Your task to perform on an android device: Do I have any events tomorrow? Image 0: 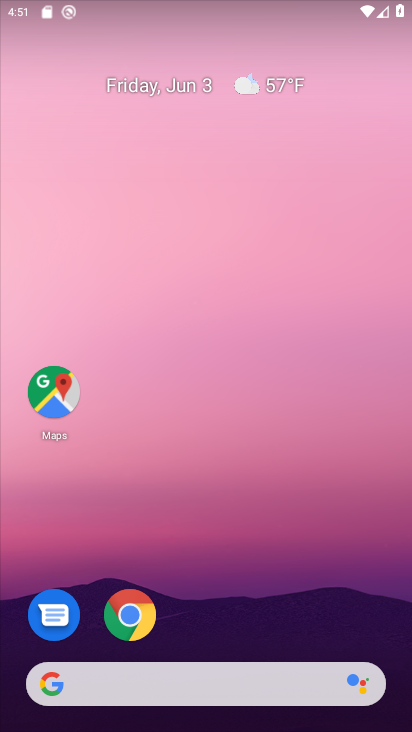
Step 0: drag from (230, 615) to (307, 39)
Your task to perform on an android device: Do I have any events tomorrow? Image 1: 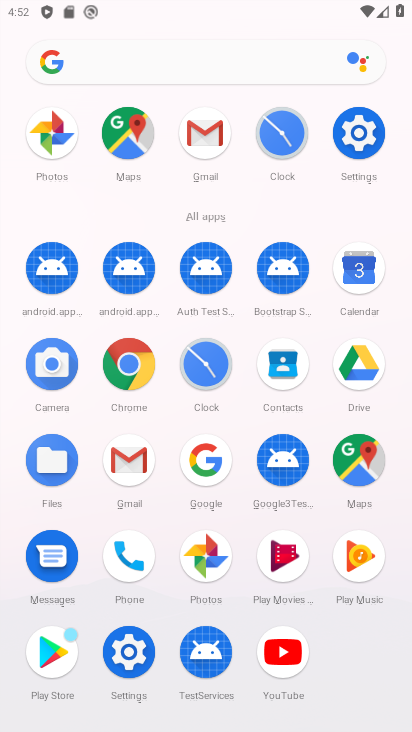
Step 1: click (350, 272)
Your task to perform on an android device: Do I have any events tomorrow? Image 2: 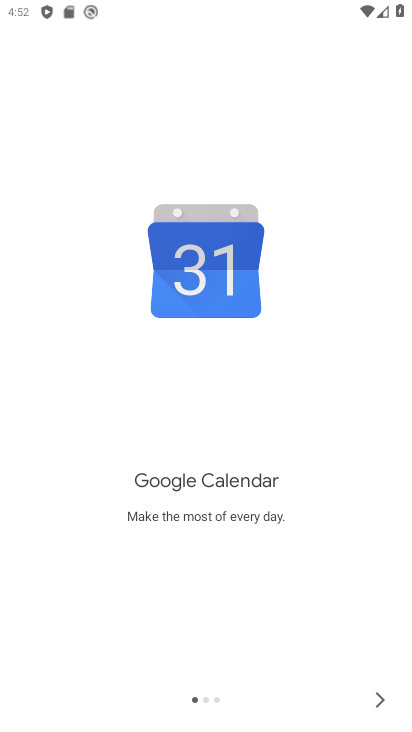
Step 2: click (385, 701)
Your task to perform on an android device: Do I have any events tomorrow? Image 3: 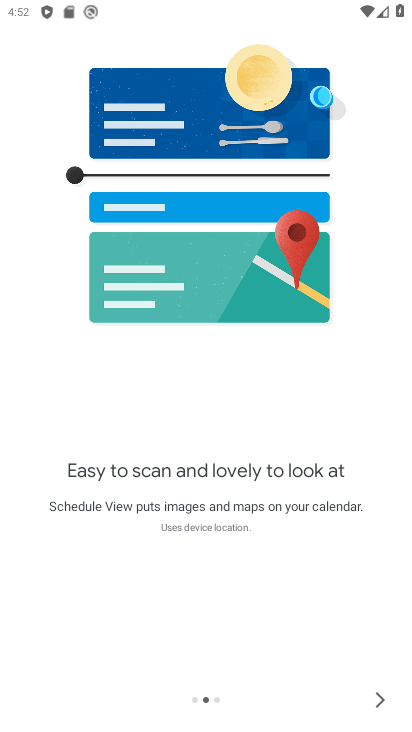
Step 3: click (381, 700)
Your task to perform on an android device: Do I have any events tomorrow? Image 4: 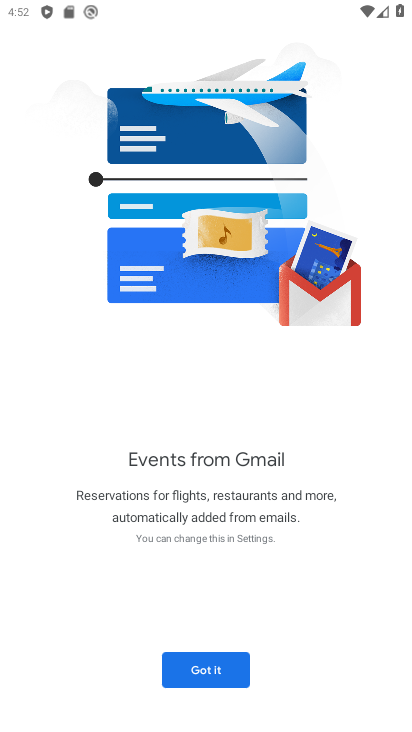
Step 4: click (202, 676)
Your task to perform on an android device: Do I have any events tomorrow? Image 5: 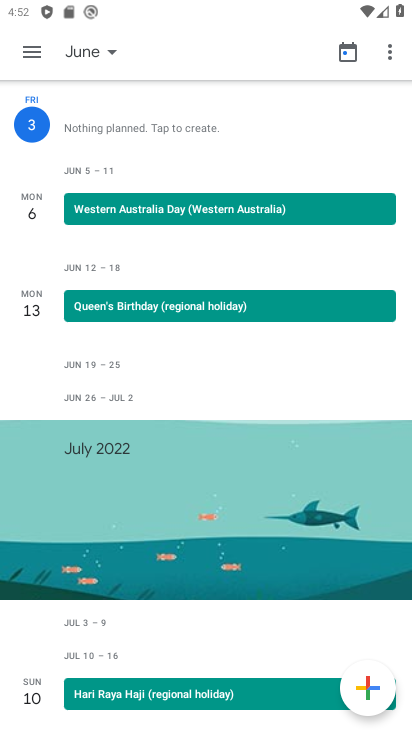
Step 5: click (17, 50)
Your task to perform on an android device: Do I have any events tomorrow? Image 6: 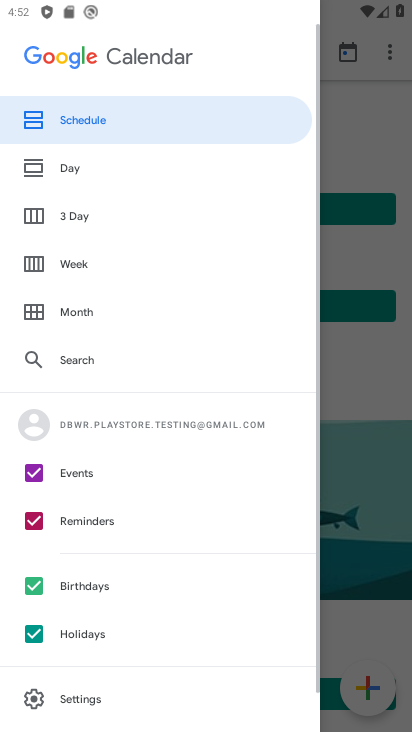
Step 6: click (98, 136)
Your task to perform on an android device: Do I have any events tomorrow? Image 7: 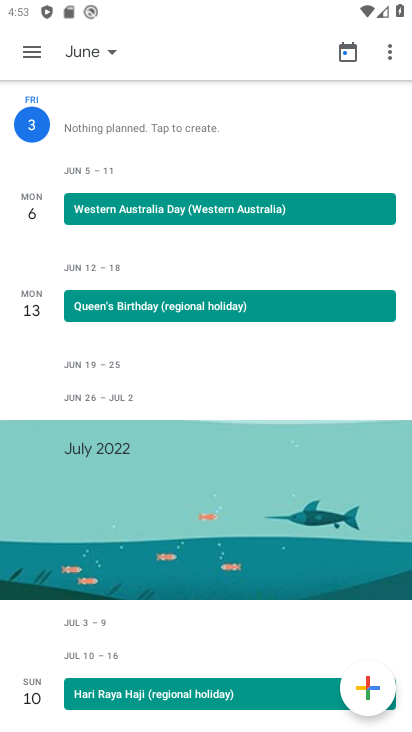
Step 7: drag from (159, 298) to (138, 555)
Your task to perform on an android device: Do I have any events tomorrow? Image 8: 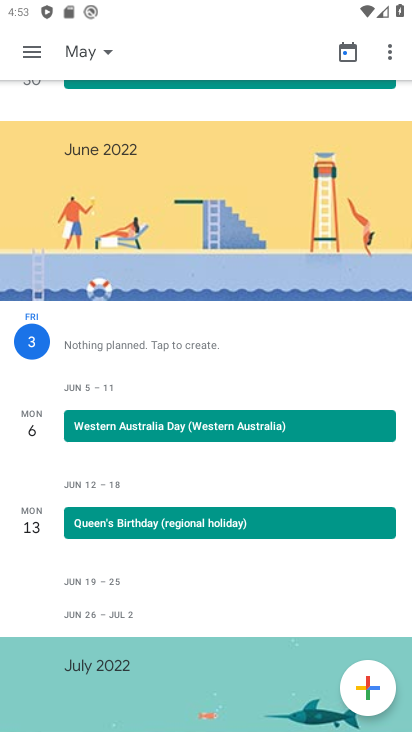
Step 8: click (34, 335)
Your task to perform on an android device: Do I have any events tomorrow? Image 9: 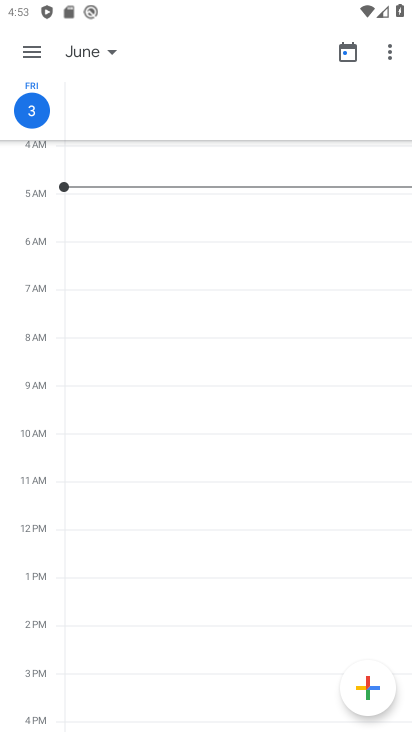
Step 9: click (32, 53)
Your task to perform on an android device: Do I have any events tomorrow? Image 10: 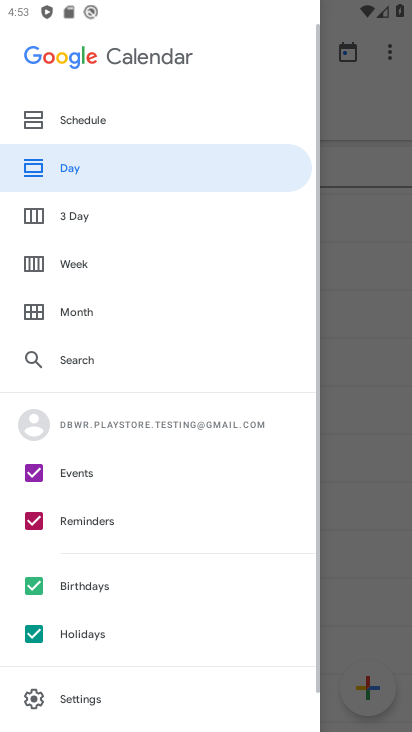
Step 10: click (64, 140)
Your task to perform on an android device: Do I have any events tomorrow? Image 11: 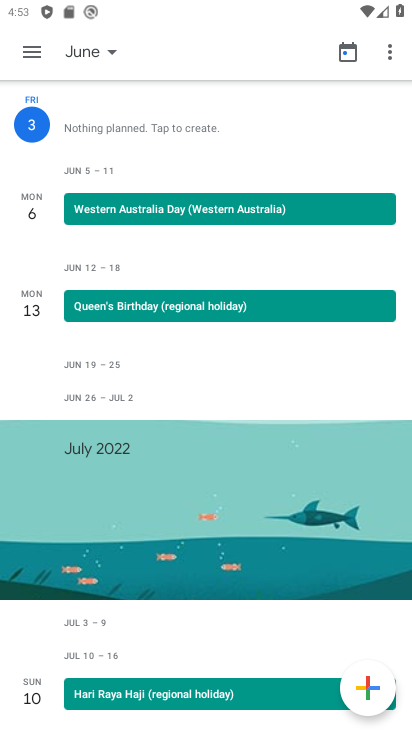
Step 11: click (18, 34)
Your task to perform on an android device: Do I have any events tomorrow? Image 12: 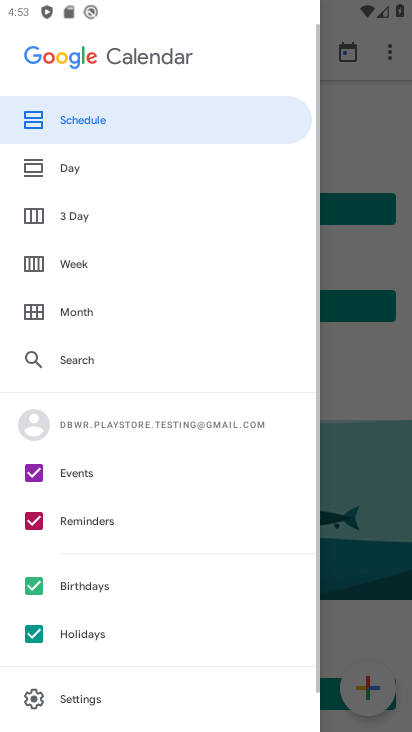
Step 12: click (99, 120)
Your task to perform on an android device: Do I have any events tomorrow? Image 13: 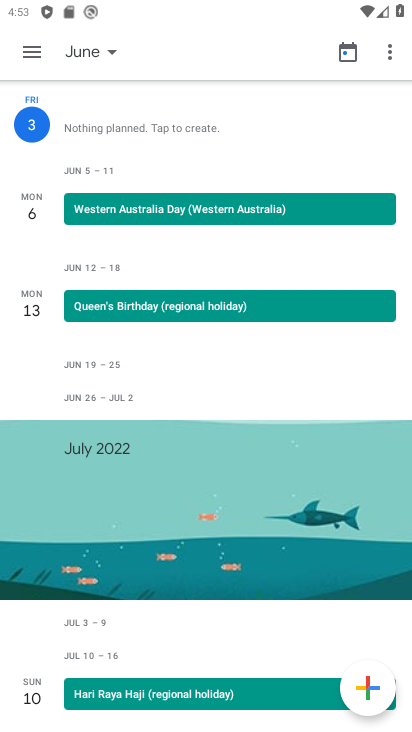
Step 13: click (89, 164)
Your task to perform on an android device: Do I have any events tomorrow? Image 14: 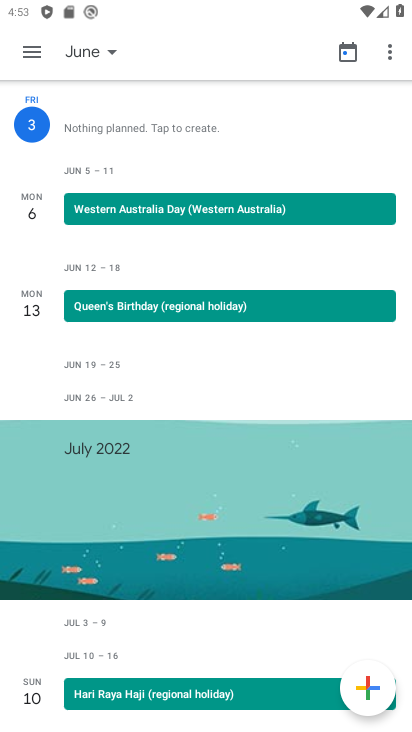
Step 14: task complete